Your task to perform on an android device: open device folders in google photos Image 0: 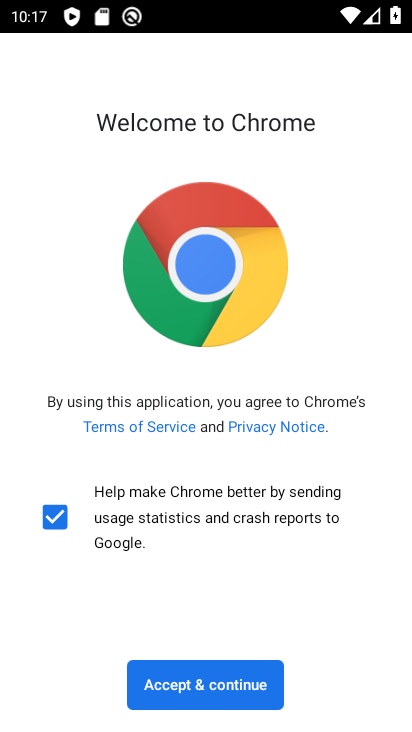
Step 0: press home button
Your task to perform on an android device: open device folders in google photos Image 1: 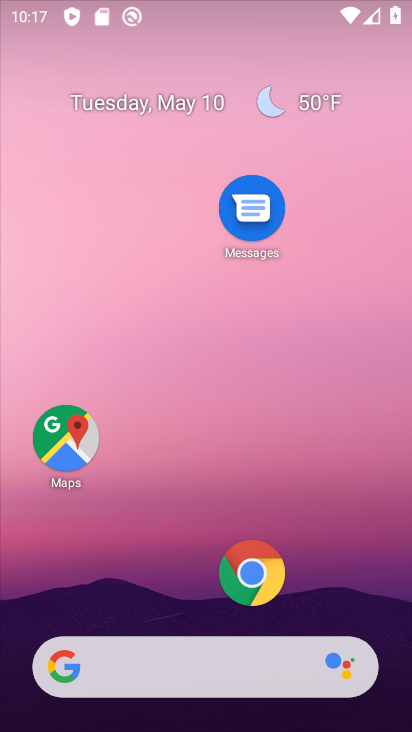
Step 1: drag from (166, 596) to (171, 93)
Your task to perform on an android device: open device folders in google photos Image 2: 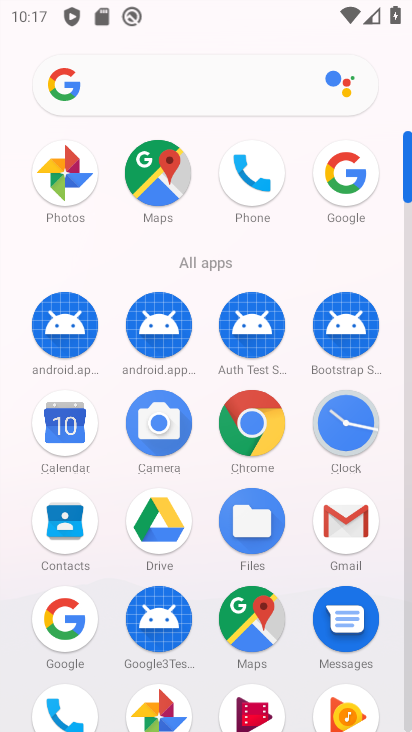
Step 2: click (69, 168)
Your task to perform on an android device: open device folders in google photos Image 3: 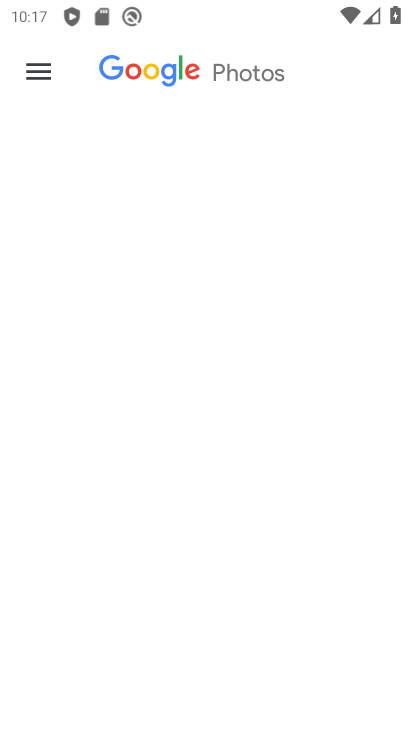
Step 3: click (43, 75)
Your task to perform on an android device: open device folders in google photos Image 4: 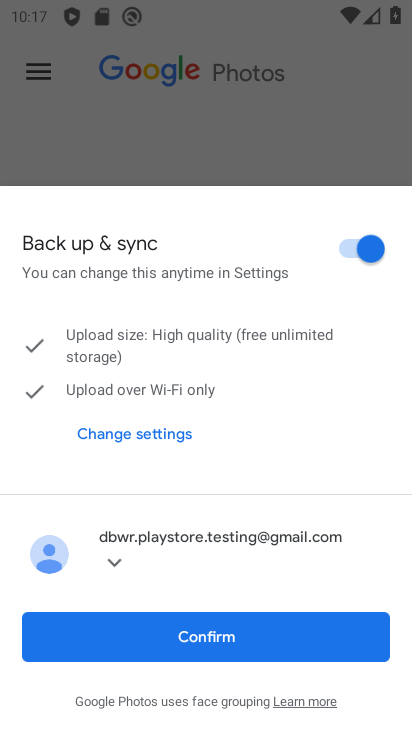
Step 4: click (210, 624)
Your task to perform on an android device: open device folders in google photos Image 5: 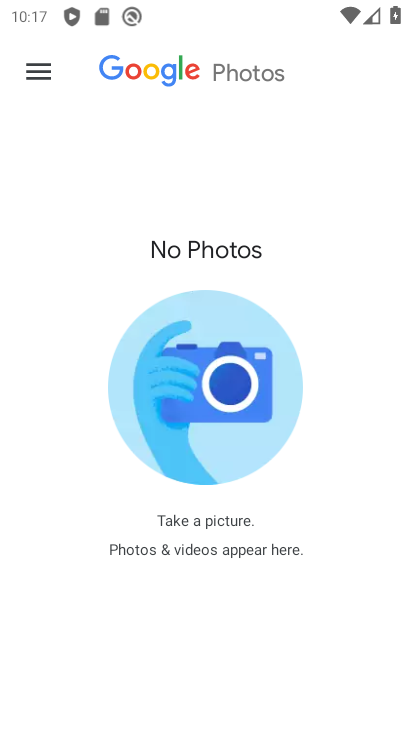
Step 5: click (41, 69)
Your task to perform on an android device: open device folders in google photos Image 6: 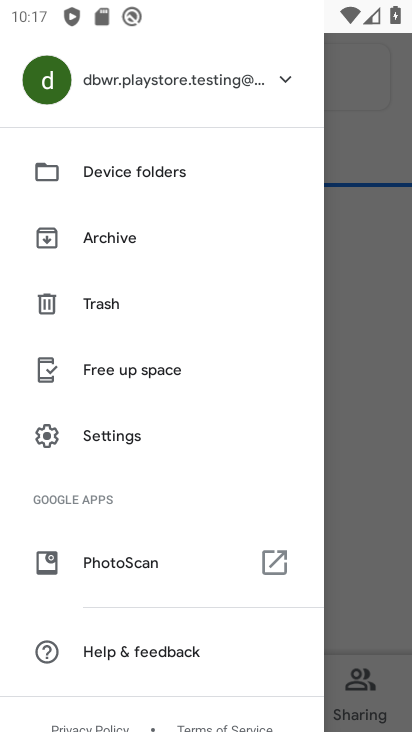
Step 6: click (137, 180)
Your task to perform on an android device: open device folders in google photos Image 7: 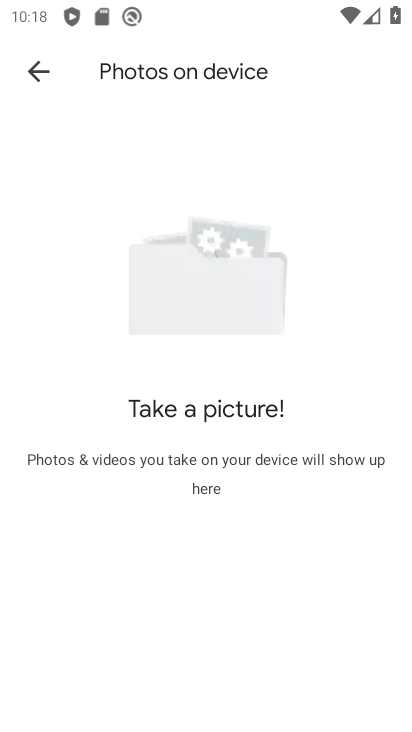
Step 7: task complete